Your task to perform on an android device: open app "VLC for Android" (install if not already installed) Image 0: 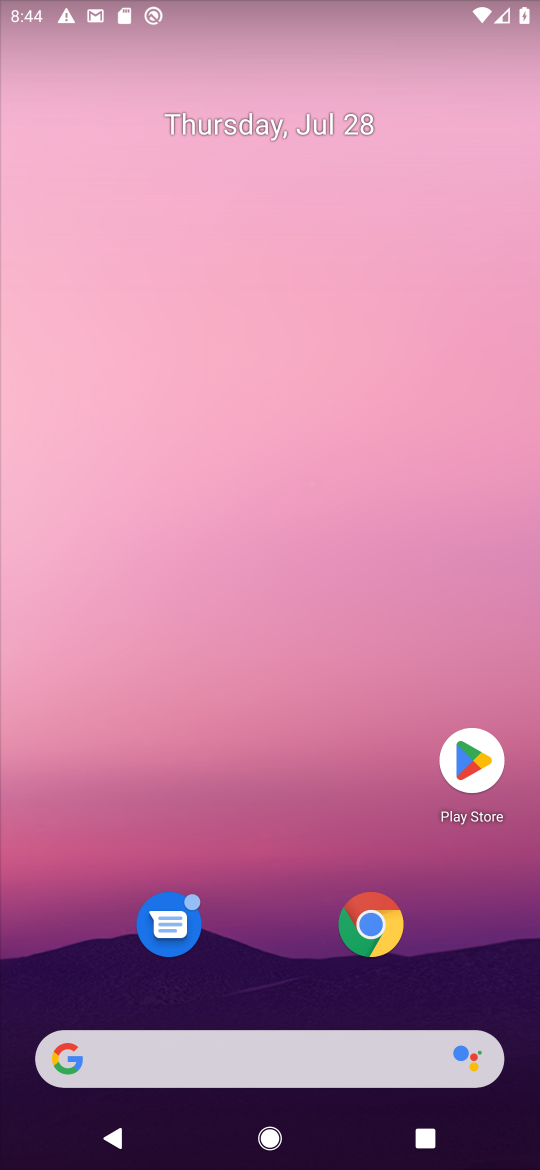
Step 0: press home button
Your task to perform on an android device: open app "VLC for Android" (install if not already installed) Image 1: 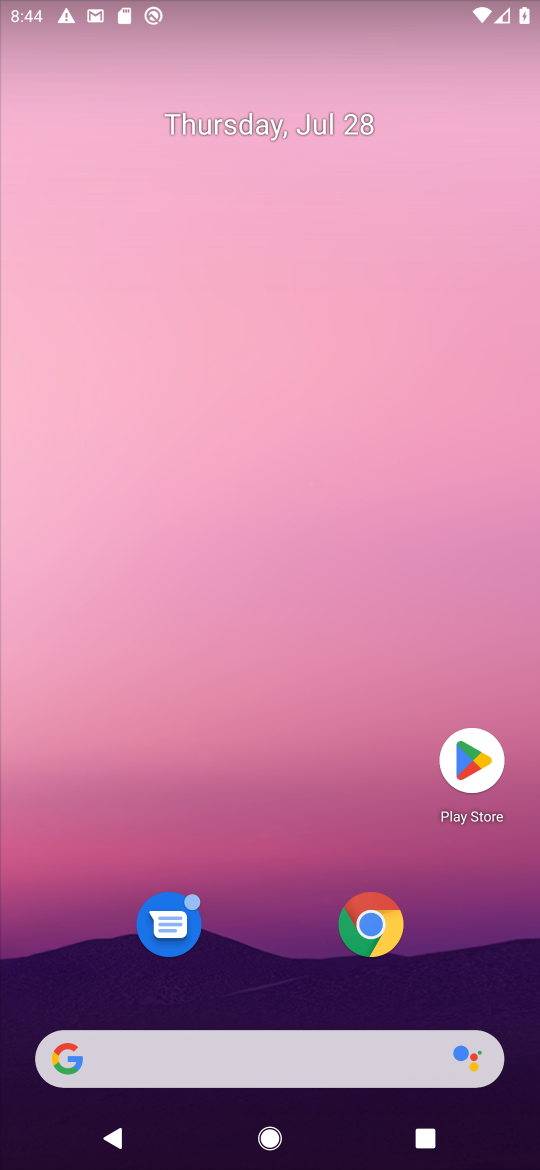
Step 1: click (484, 754)
Your task to perform on an android device: open app "VLC for Android" (install if not already installed) Image 2: 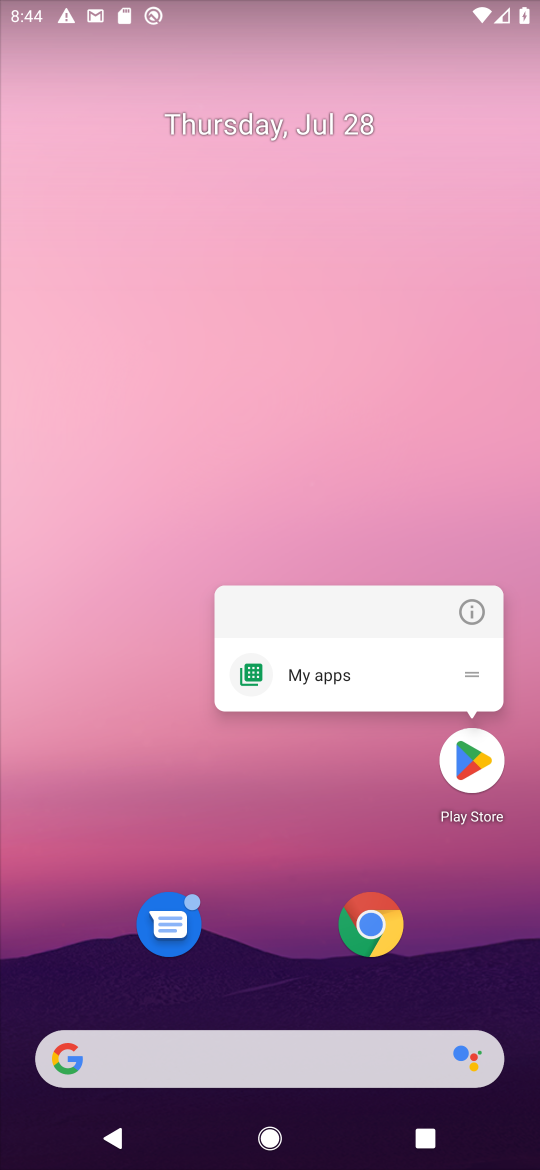
Step 2: click (473, 756)
Your task to perform on an android device: open app "VLC for Android" (install if not already installed) Image 3: 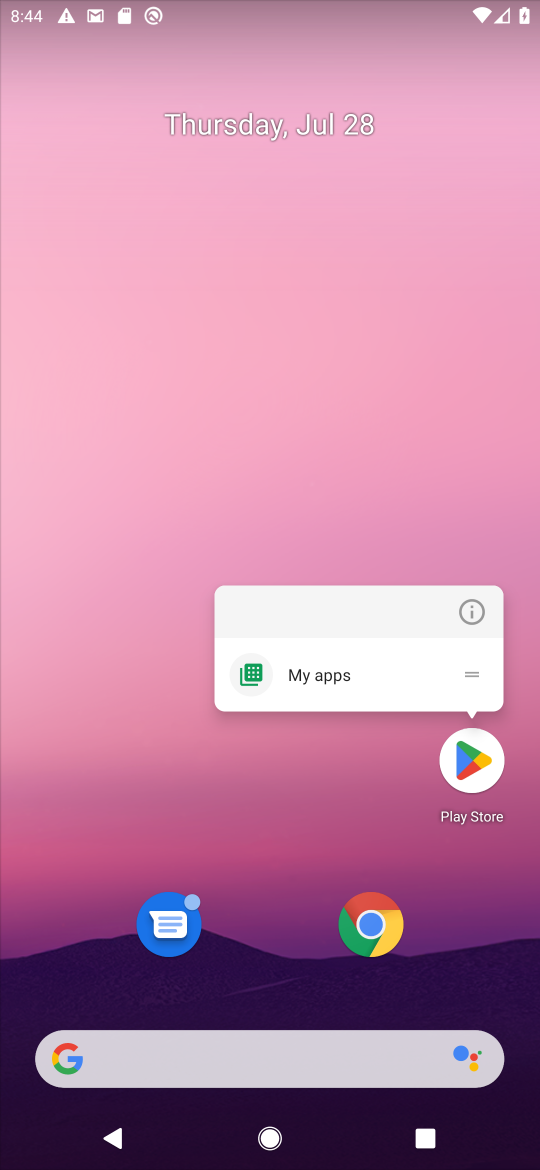
Step 3: click (473, 756)
Your task to perform on an android device: open app "VLC for Android" (install if not already installed) Image 4: 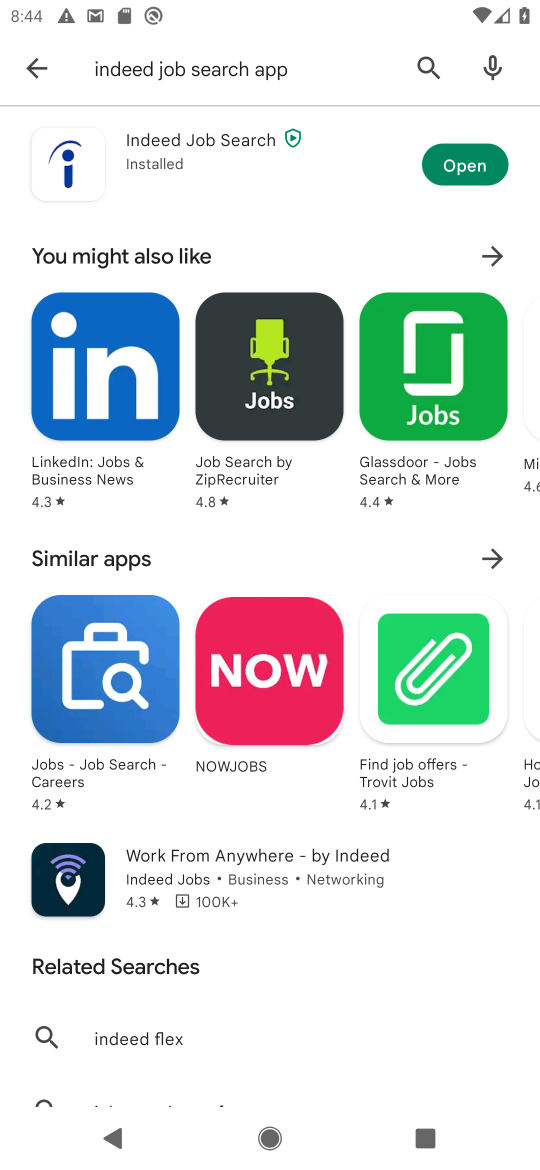
Step 4: click (424, 53)
Your task to perform on an android device: open app "VLC for Android" (install if not already installed) Image 5: 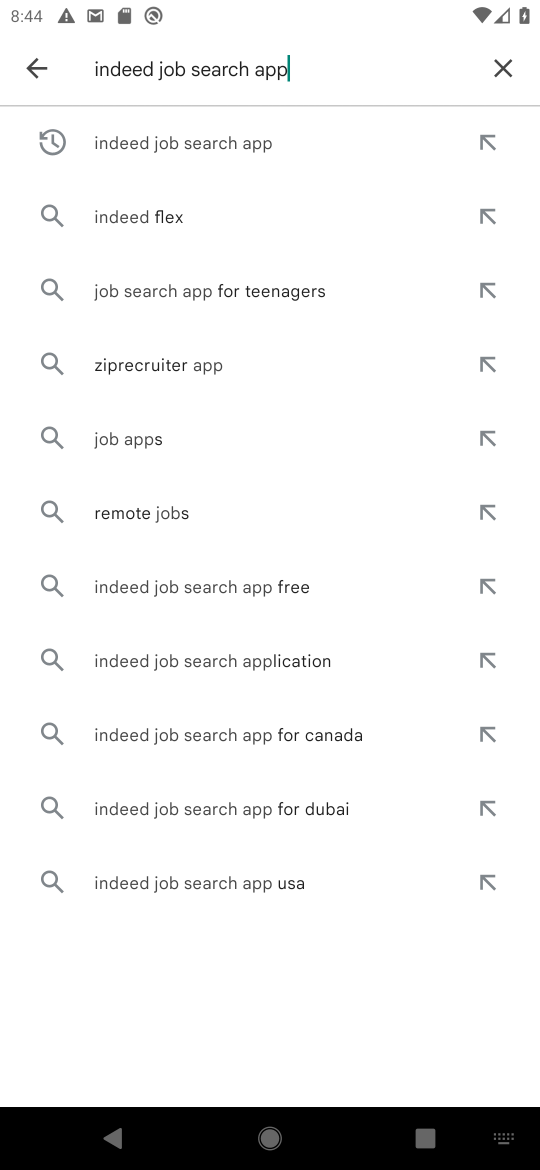
Step 5: click (501, 67)
Your task to perform on an android device: open app "VLC for Android" (install if not already installed) Image 6: 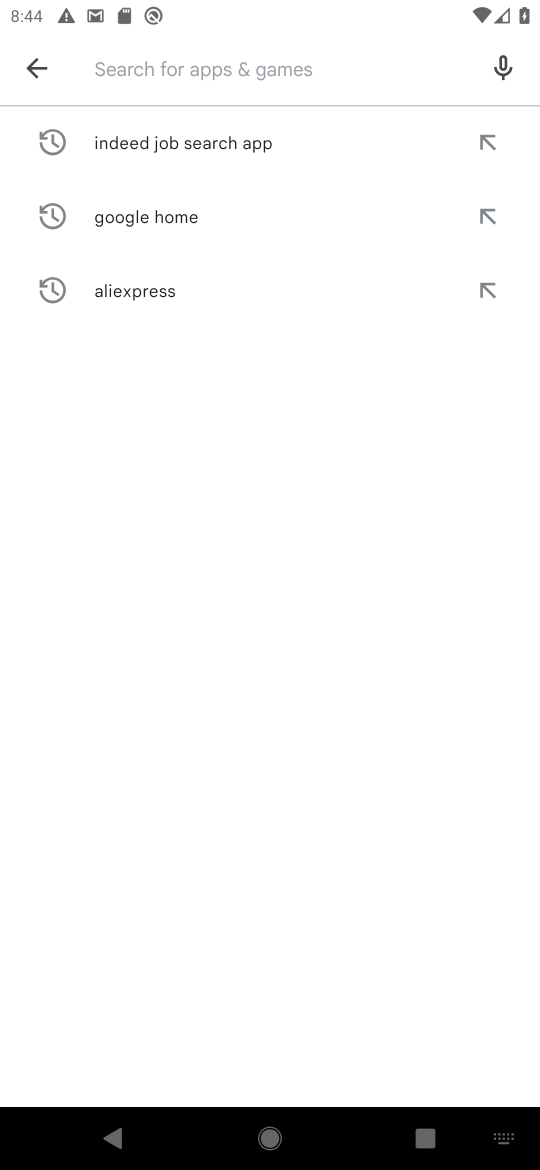
Step 6: type "VLC for Android"
Your task to perform on an android device: open app "VLC for Android" (install if not already installed) Image 7: 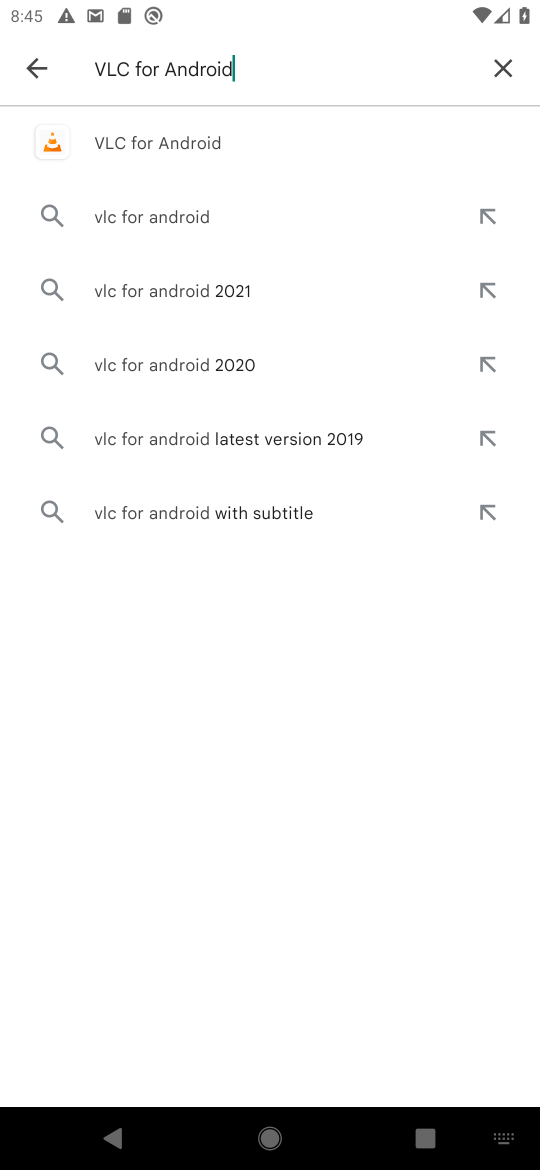
Step 7: click (195, 142)
Your task to perform on an android device: open app "VLC for Android" (install if not already installed) Image 8: 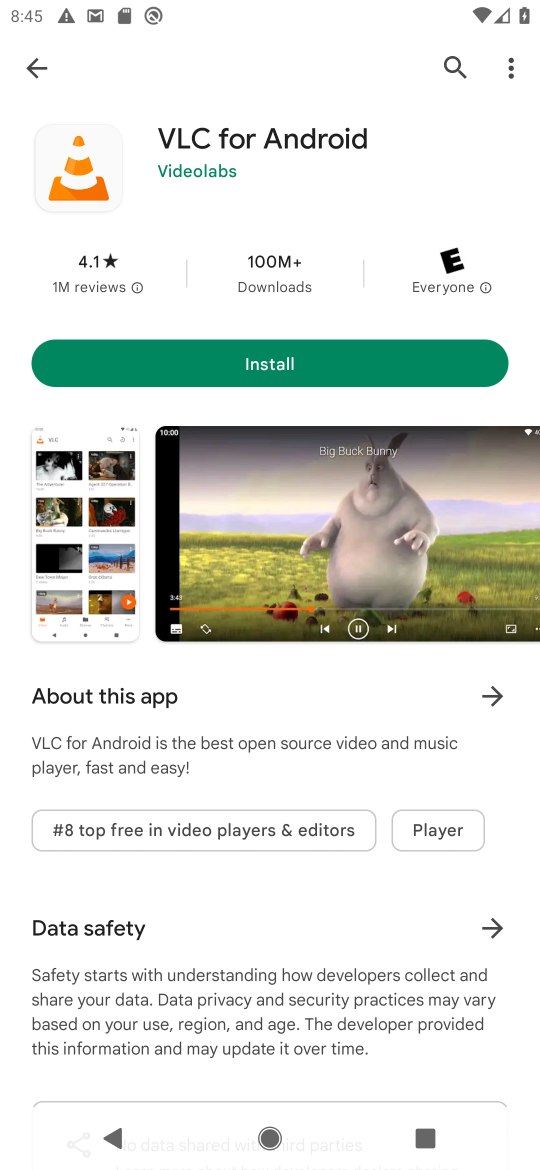
Step 8: click (317, 364)
Your task to perform on an android device: open app "VLC for Android" (install if not already installed) Image 9: 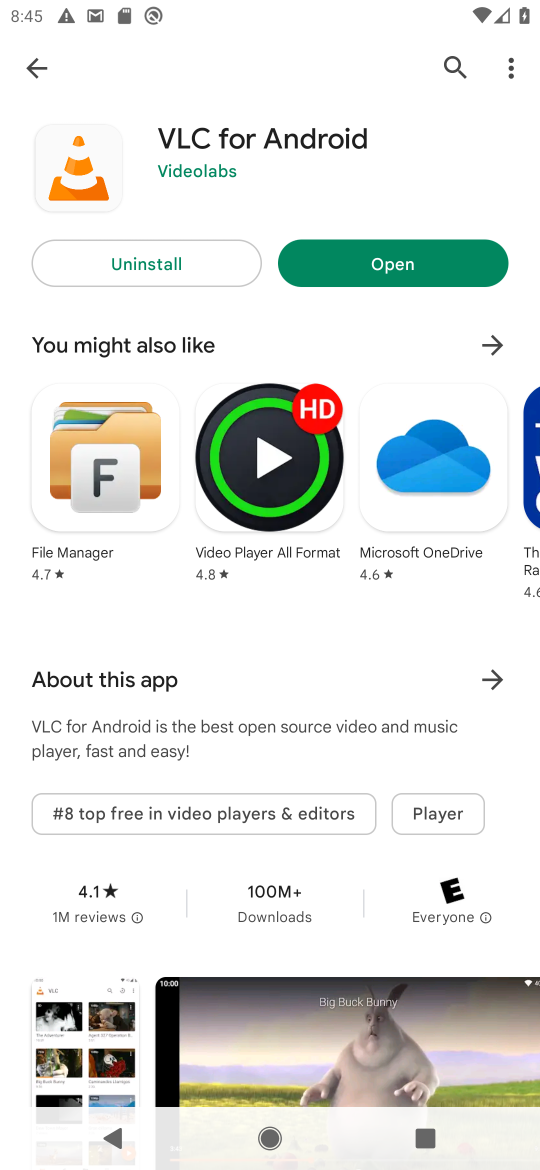
Step 9: click (402, 241)
Your task to perform on an android device: open app "VLC for Android" (install if not already installed) Image 10: 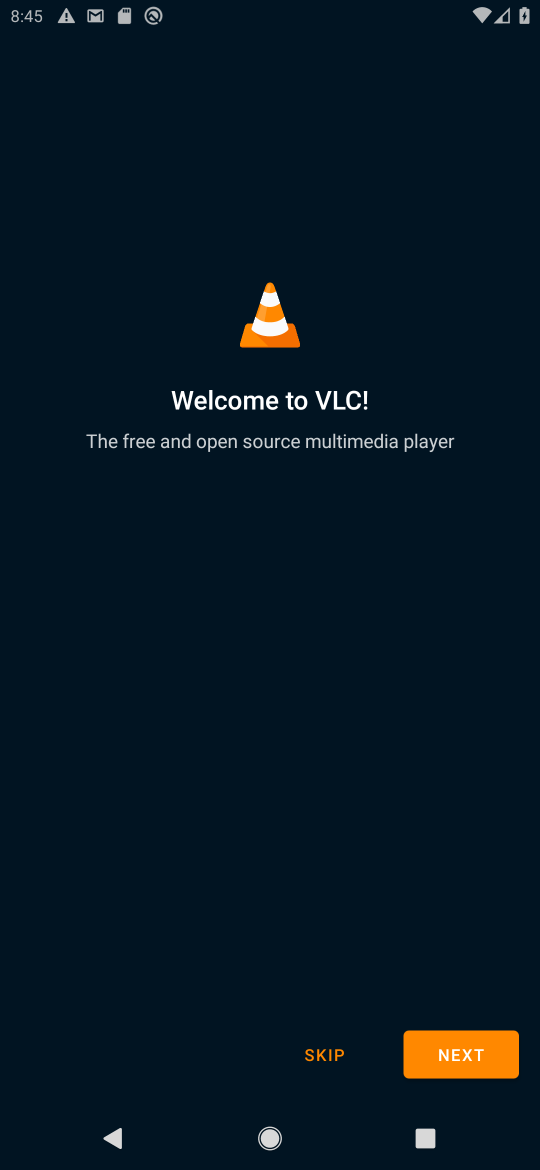
Step 10: click (387, 267)
Your task to perform on an android device: open app "VLC for Android" (install if not already installed) Image 11: 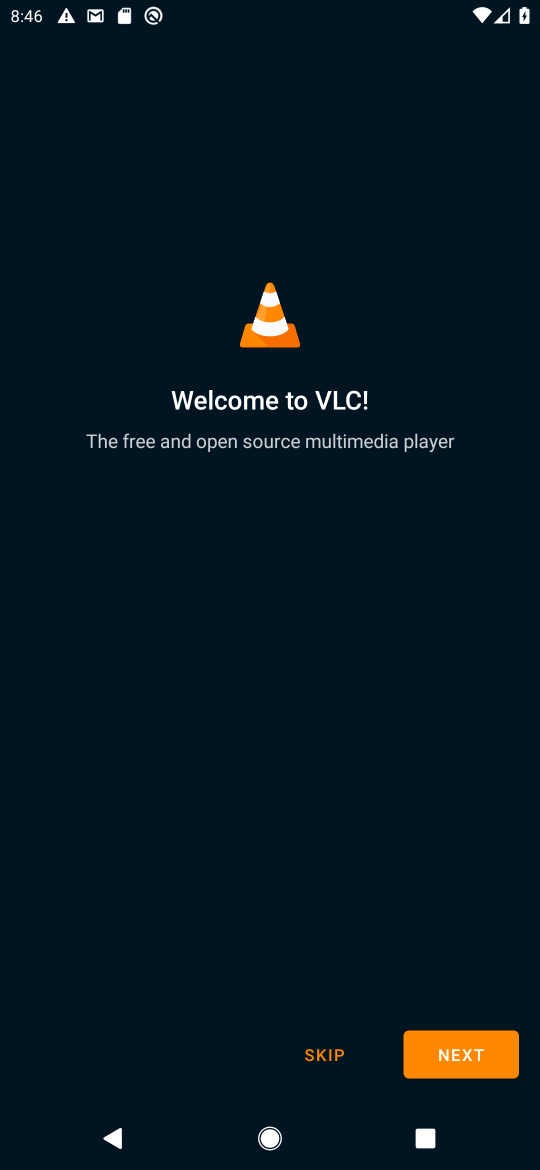
Step 11: task complete